Your task to perform on an android device: turn off improve location accuracy Image 0: 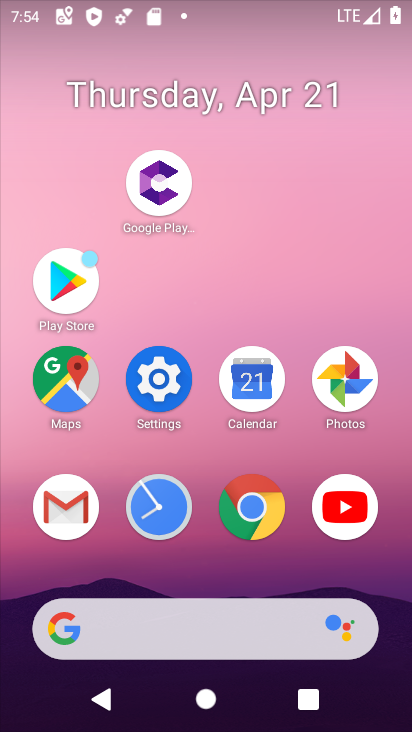
Step 0: click (157, 382)
Your task to perform on an android device: turn off improve location accuracy Image 1: 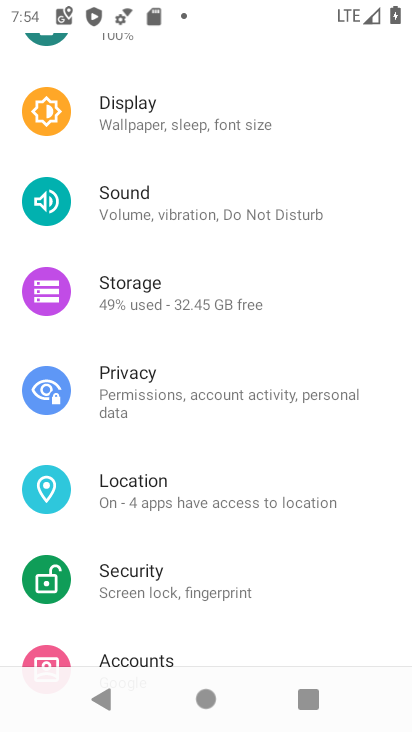
Step 1: click (144, 473)
Your task to perform on an android device: turn off improve location accuracy Image 2: 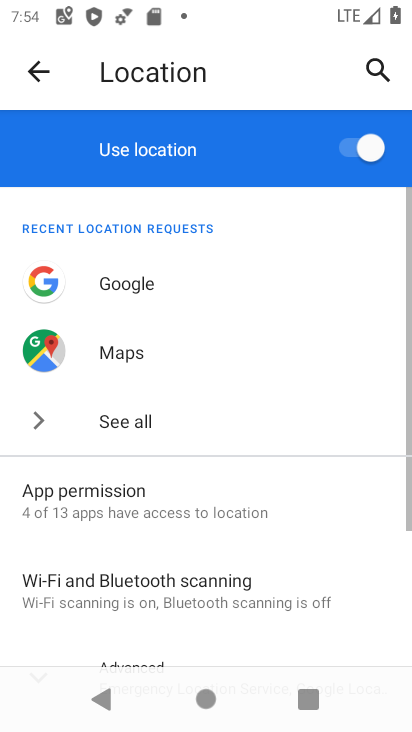
Step 2: drag from (268, 533) to (285, 267)
Your task to perform on an android device: turn off improve location accuracy Image 3: 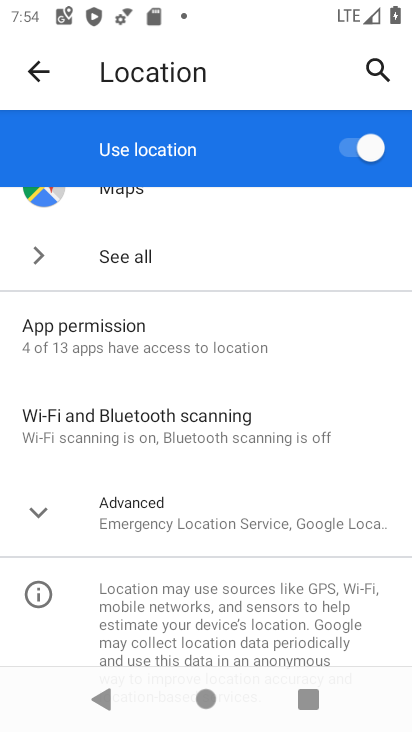
Step 3: click (44, 507)
Your task to perform on an android device: turn off improve location accuracy Image 4: 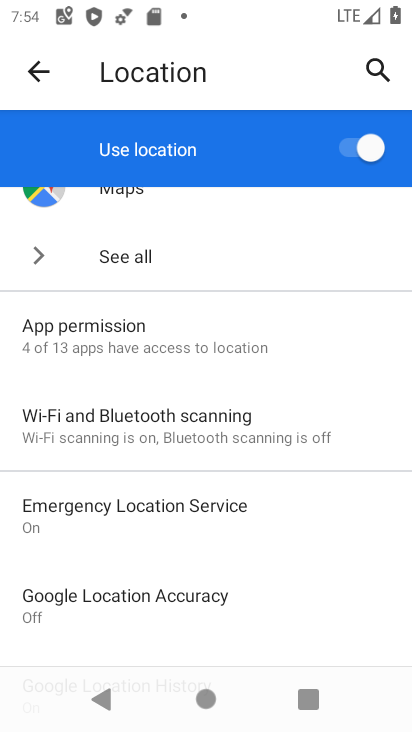
Step 4: click (154, 593)
Your task to perform on an android device: turn off improve location accuracy Image 5: 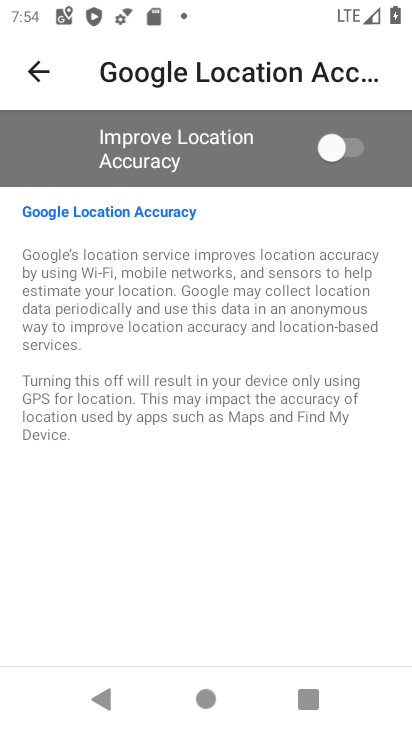
Step 5: task complete